Your task to perform on an android device: turn smart compose on in the gmail app Image 0: 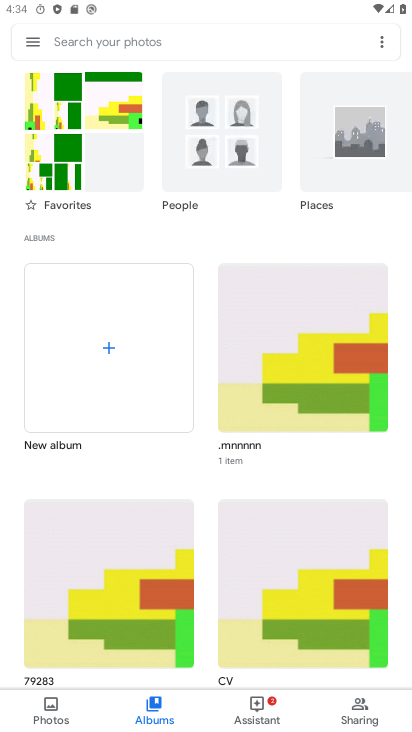
Step 0: press home button
Your task to perform on an android device: turn smart compose on in the gmail app Image 1: 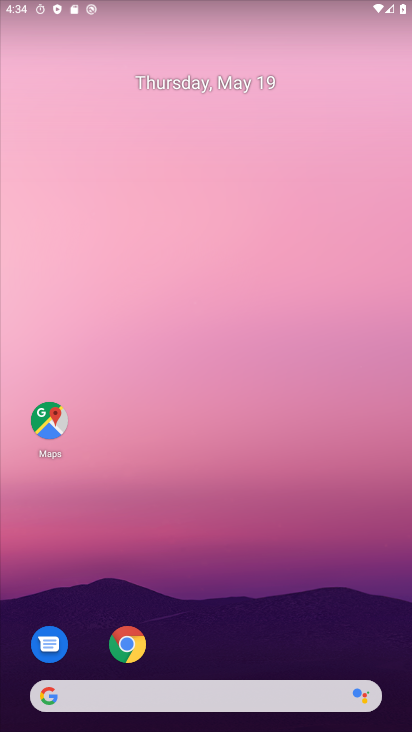
Step 1: drag from (91, 659) to (133, 275)
Your task to perform on an android device: turn smart compose on in the gmail app Image 2: 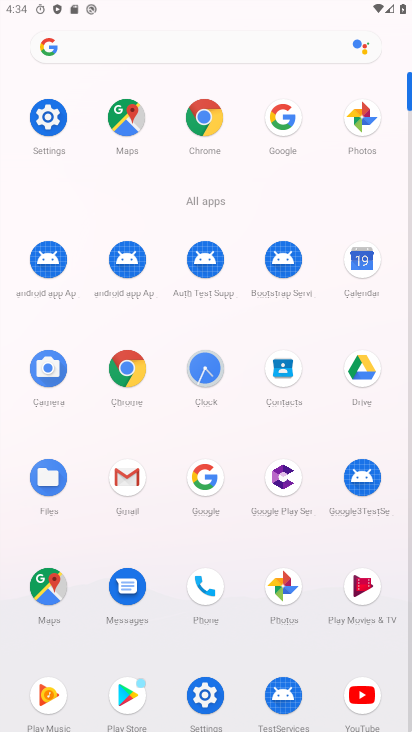
Step 2: click (134, 481)
Your task to perform on an android device: turn smart compose on in the gmail app Image 3: 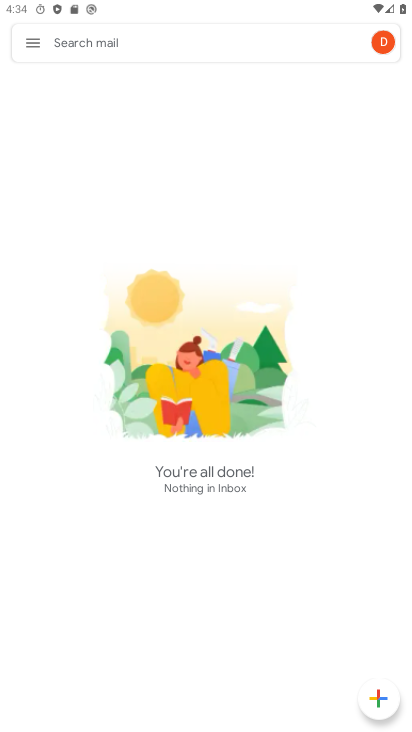
Step 3: click (33, 49)
Your task to perform on an android device: turn smart compose on in the gmail app Image 4: 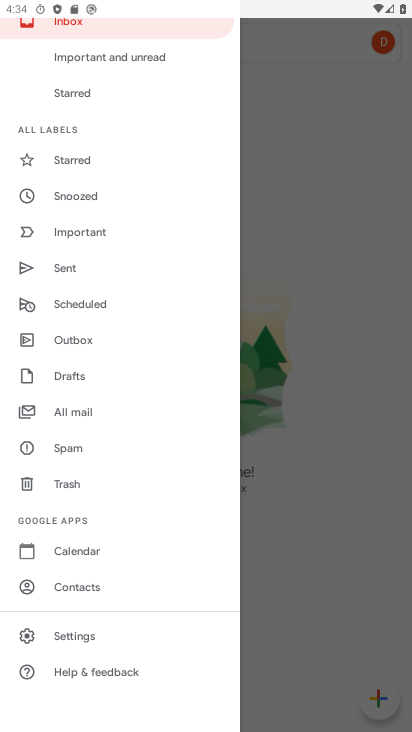
Step 4: click (67, 639)
Your task to perform on an android device: turn smart compose on in the gmail app Image 5: 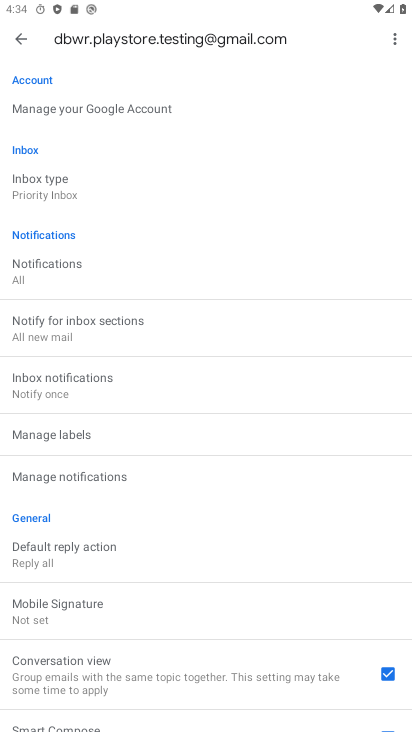
Step 5: task complete